Your task to perform on an android device: toggle priority inbox in the gmail app Image 0: 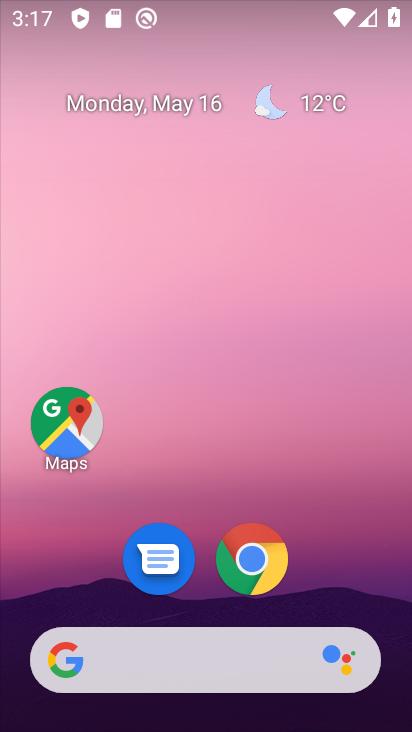
Step 0: click (289, 454)
Your task to perform on an android device: toggle priority inbox in the gmail app Image 1: 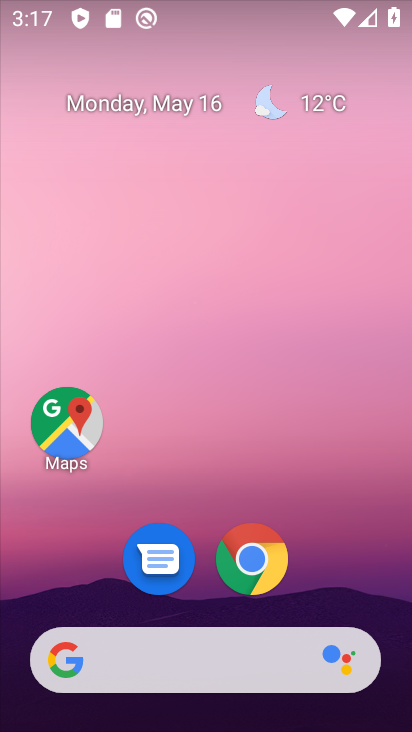
Step 1: drag from (289, 454) to (206, 48)
Your task to perform on an android device: toggle priority inbox in the gmail app Image 2: 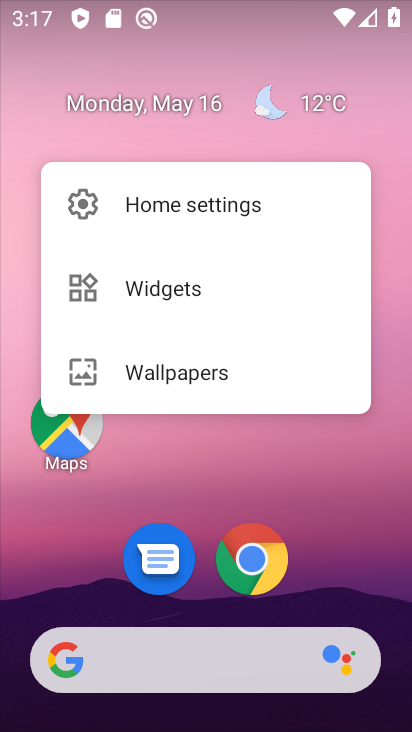
Step 2: click (403, 527)
Your task to perform on an android device: toggle priority inbox in the gmail app Image 3: 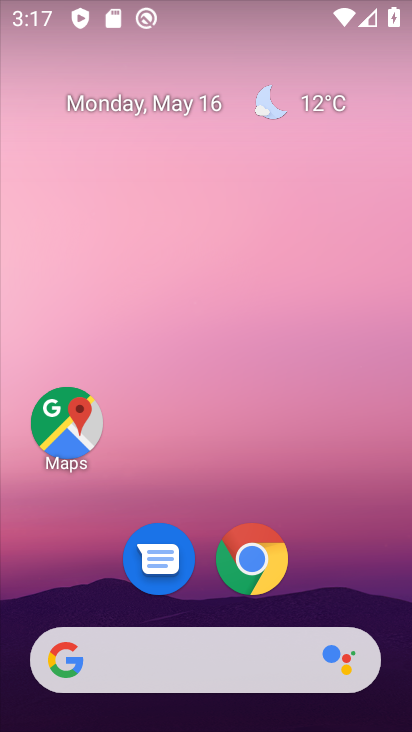
Step 3: drag from (346, 516) to (253, 101)
Your task to perform on an android device: toggle priority inbox in the gmail app Image 4: 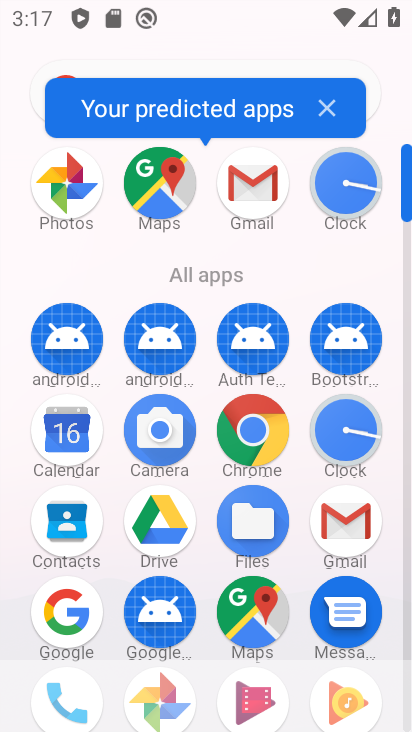
Step 4: click (330, 510)
Your task to perform on an android device: toggle priority inbox in the gmail app Image 5: 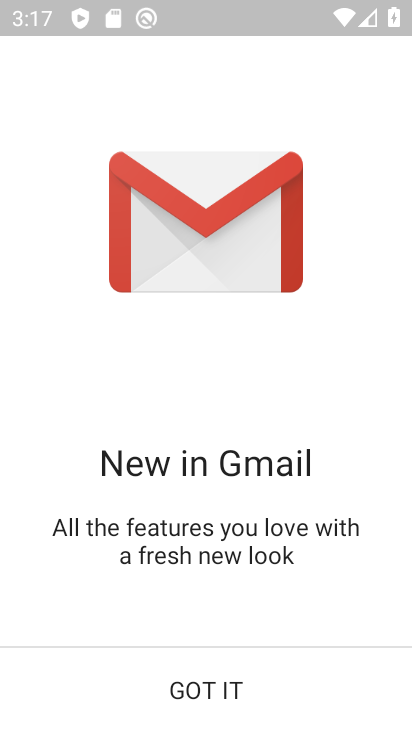
Step 5: click (264, 649)
Your task to perform on an android device: toggle priority inbox in the gmail app Image 6: 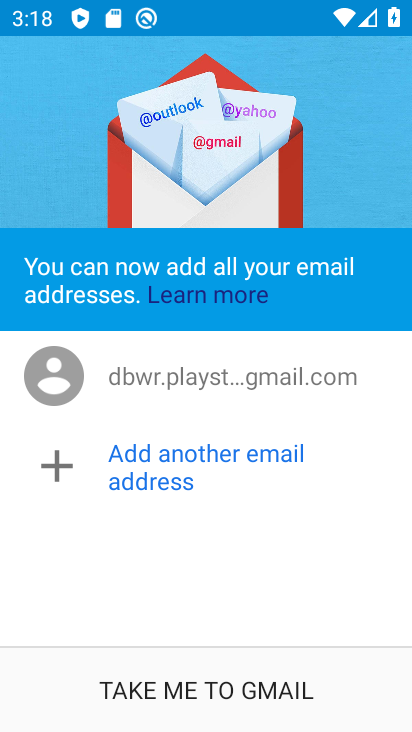
Step 6: click (203, 659)
Your task to perform on an android device: toggle priority inbox in the gmail app Image 7: 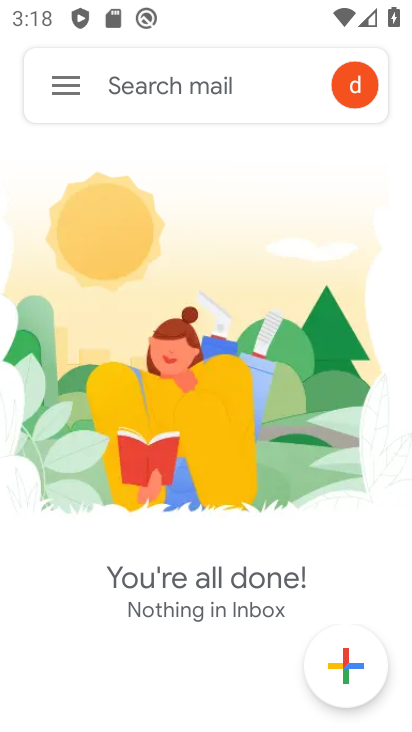
Step 7: click (79, 95)
Your task to perform on an android device: toggle priority inbox in the gmail app Image 8: 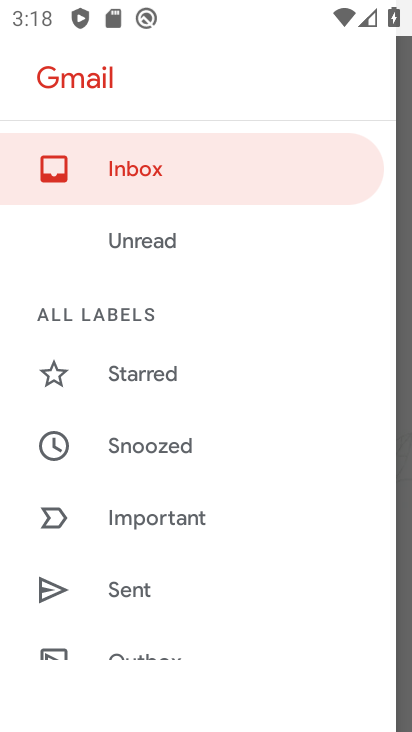
Step 8: drag from (131, 570) to (153, 276)
Your task to perform on an android device: toggle priority inbox in the gmail app Image 9: 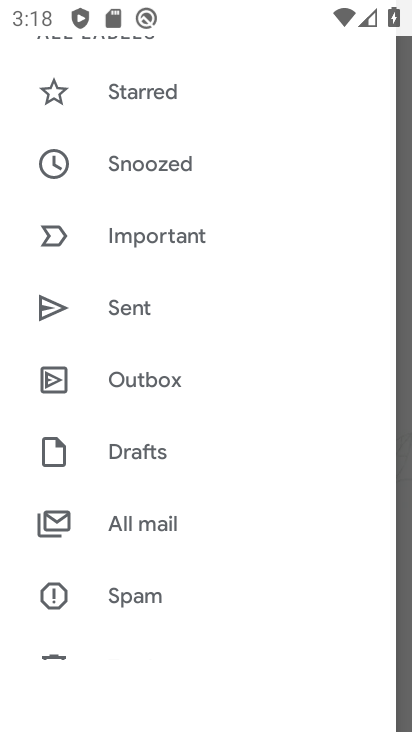
Step 9: drag from (236, 591) to (217, 296)
Your task to perform on an android device: toggle priority inbox in the gmail app Image 10: 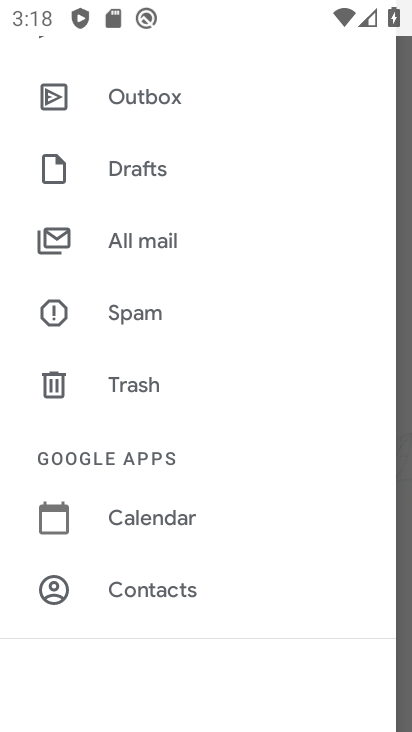
Step 10: drag from (160, 593) to (158, 415)
Your task to perform on an android device: toggle priority inbox in the gmail app Image 11: 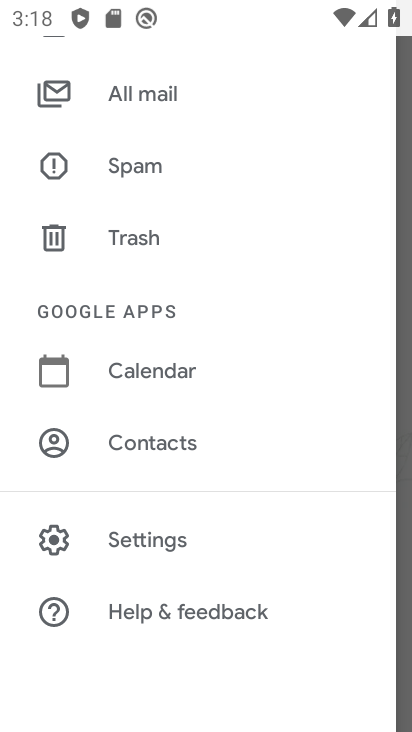
Step 11: click (145, 632)
Your task to perform on an android device: toggle priority inbox in the gmail app Image 12: 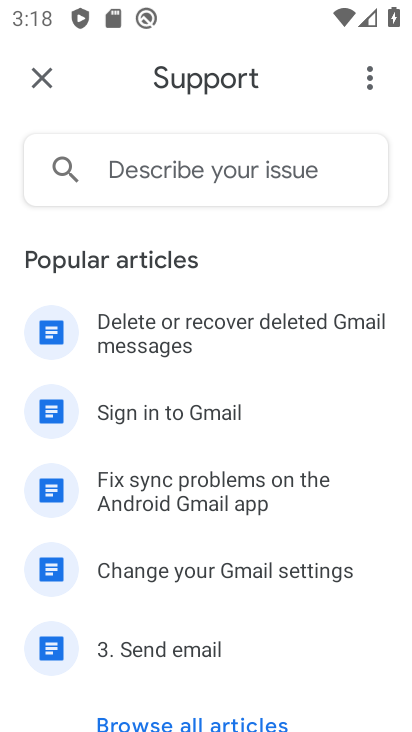
Step 12: click (64, 109)
Your task to perform on an android device: toggle priority inbox in the gmail app Image 13: 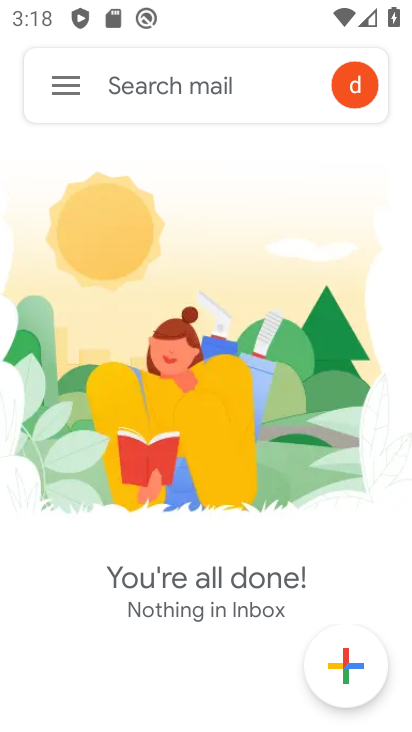
Step 13: click (42, 102)
Your task to perform on an android device: toggle priority inbox in the gmail app Image 14: 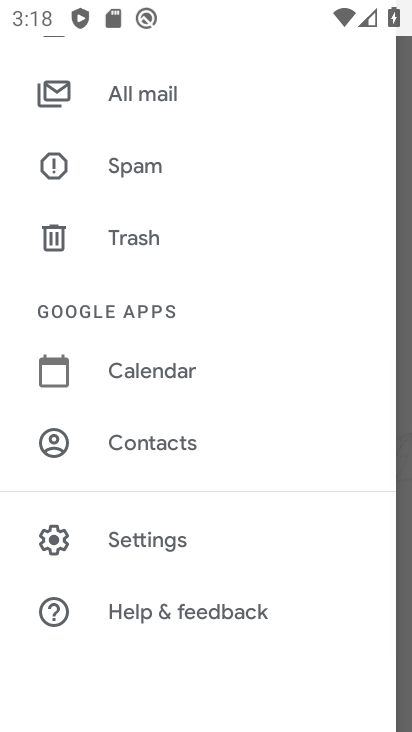
Step 14: click (109, 554)
Your task to perform on an android device: toggle priority inbox in the gmail app Image 15: 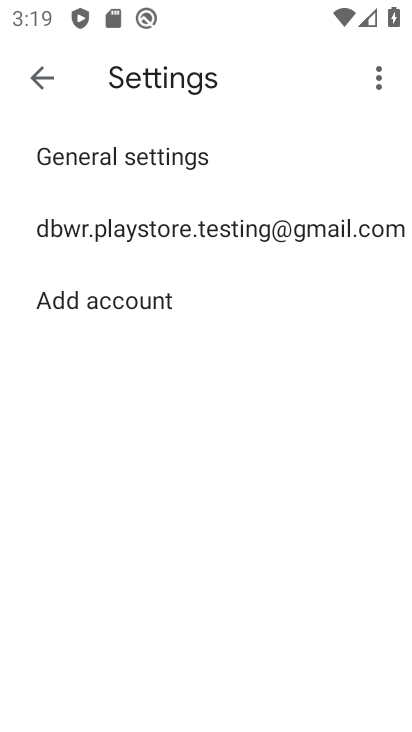
Step 15: click (112, 217)
Your task to perform on an android device: toggle priority inbox in the gmail app Image 16: 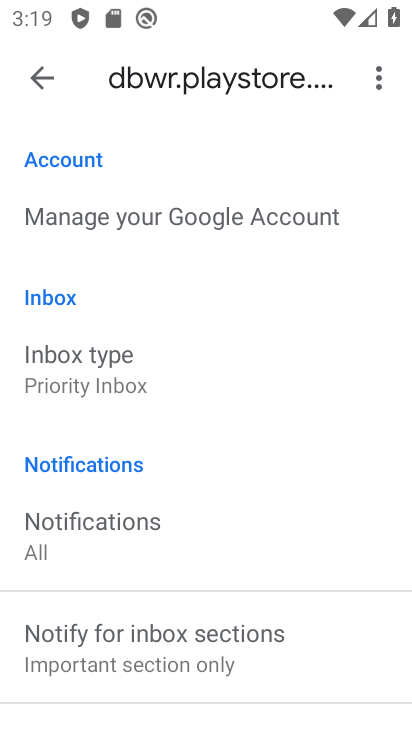
Step 16: task complete